Your task to perform on an android device: toggle wifi Image 0: 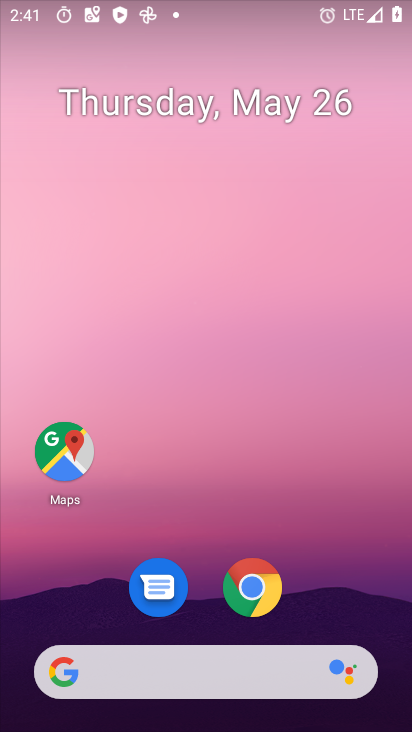
Step 0: drag from (374, 618) to (390, 252)
Your task to perform on an android device: toggle wifi Image 1: 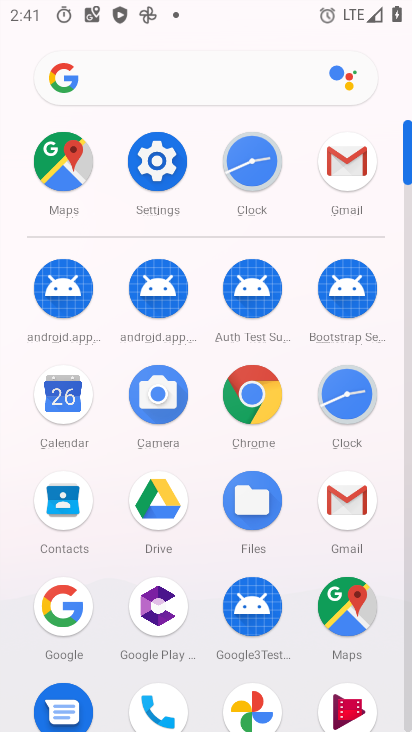
Step 1: click (155, 175)
Your task to perform on an android device: toggle wifi Image 2: 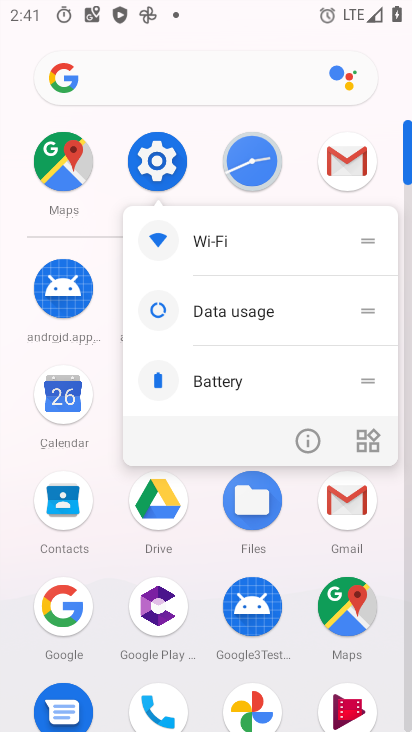
Step 2: click (155, 175)
Your task to perform on an android device: toggle wifi Image 3: 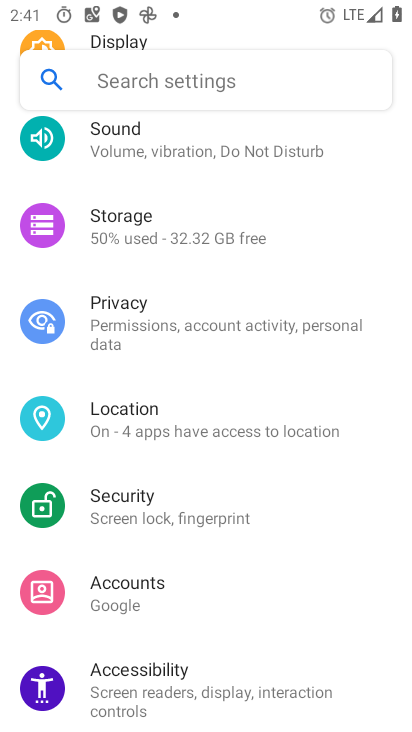
Step 3: drag from (352, 568) to (355, 483)
Your task to perform on an android device: toggle wifi Image 4: 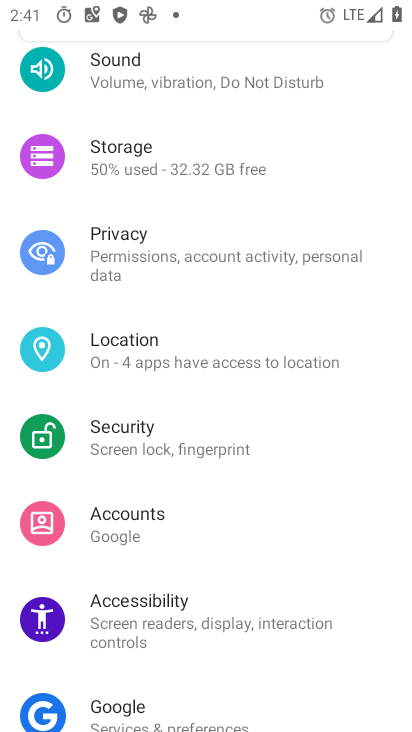
Step 4: drag from (365, 604) to (356, 516)
Your task to perform on an android device: toggle wifi Image 5: 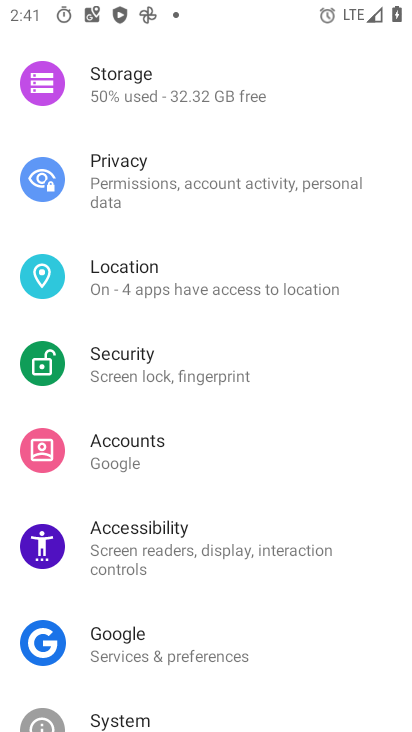
Step 5: drag from (353, 615) to (352, 515)
Your task to perform on an android device: toggle wifi Image 6: 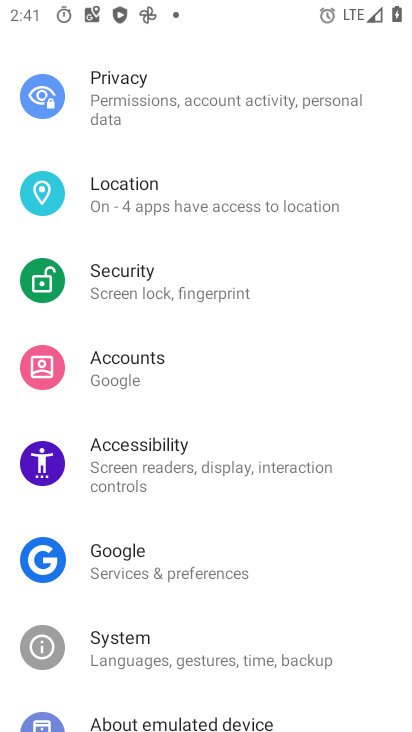
Step 6: drag from (352, 600) to (355, 497)
Your task to perform on an android device: toggle wifi Image 7: 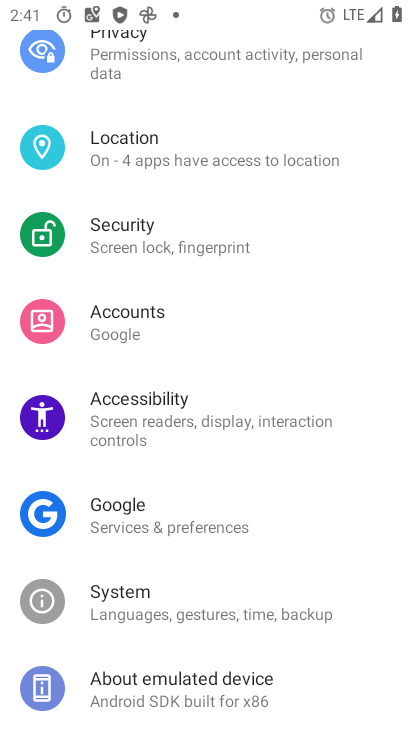
Step 7: drag from (341, 472) to (348, 578)
Your task to perform on an android device: toggle wifi Image 8: 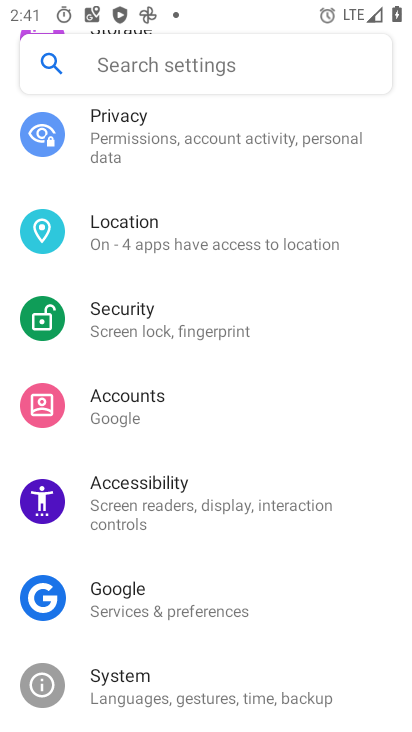
Step 8: drag from (365, 430) to (380, 531)
Your task to perform on an android device: toggle wifi Image 9: 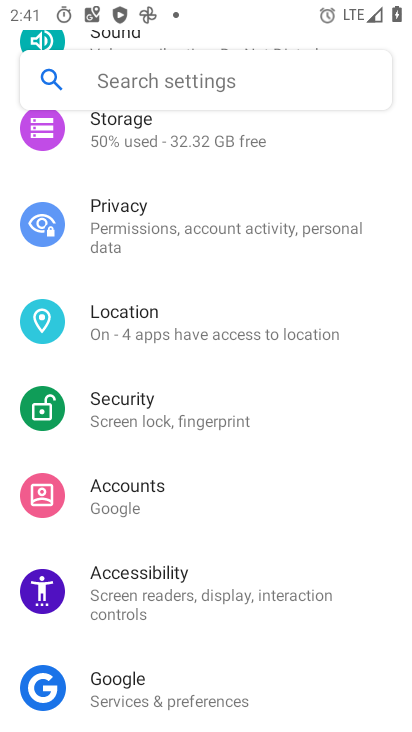
Step 9: drag from (392, 378) to (394, 488)
Your task to perform on an android device: toggle wifi Image 10: 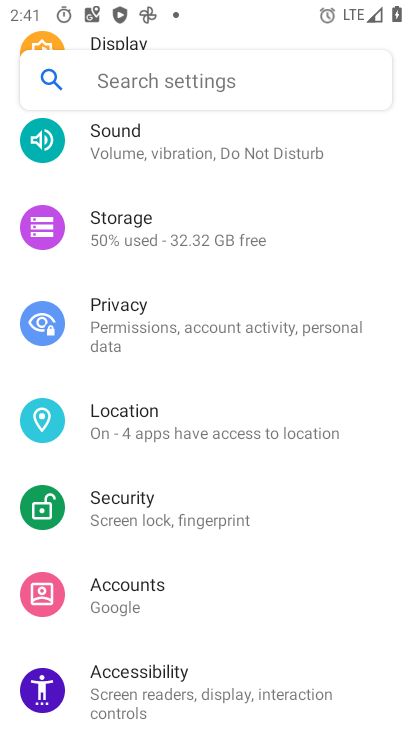
Step 10: drag from (376, 367) to (383, 465)
Your task to perform on an android device: toggle wifi Image 11: 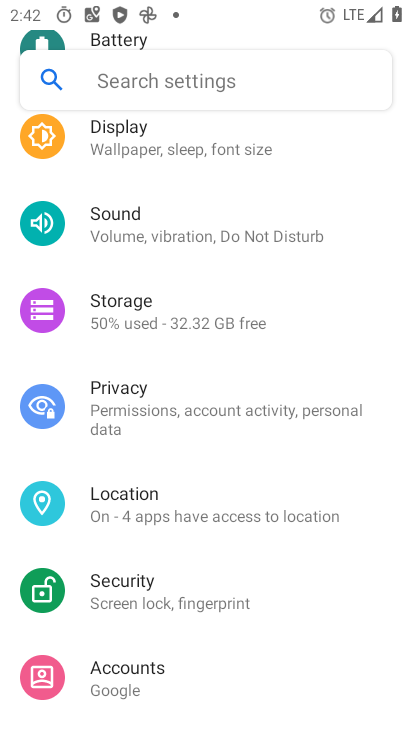
Step 11: drag from (378, 300) to (372, 444)
Your task to perform on an android device: toggle wifi Image 12: 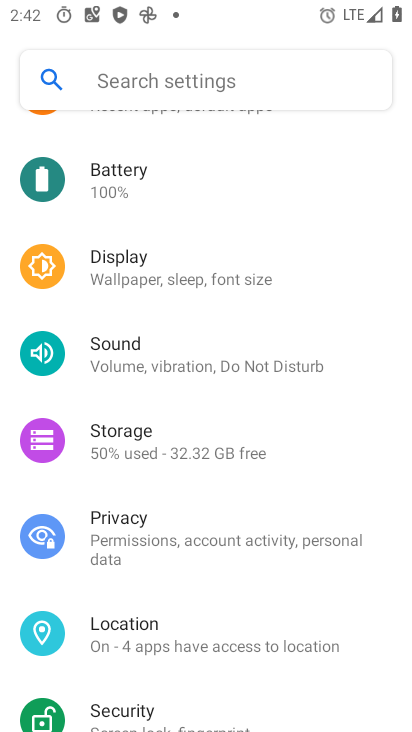
Step 12: drag from (359, 301) to (363, 431)
Your task to perform on an android device: toggle wifi Image 13: 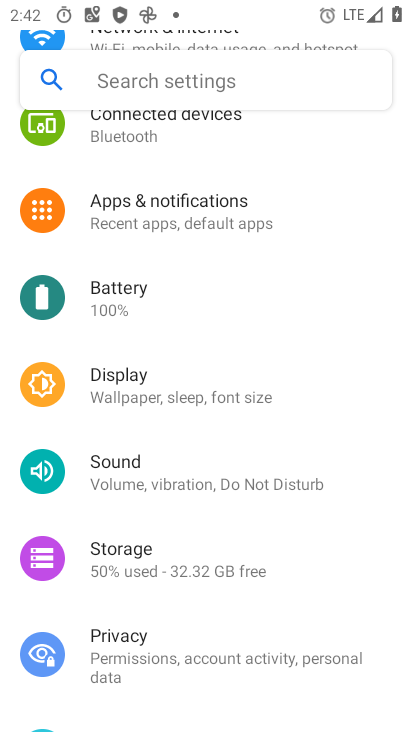
Step 13: drag from (355, 355) to (364, 458)
Your task to perform on an android device: toggle wifi Image 14: 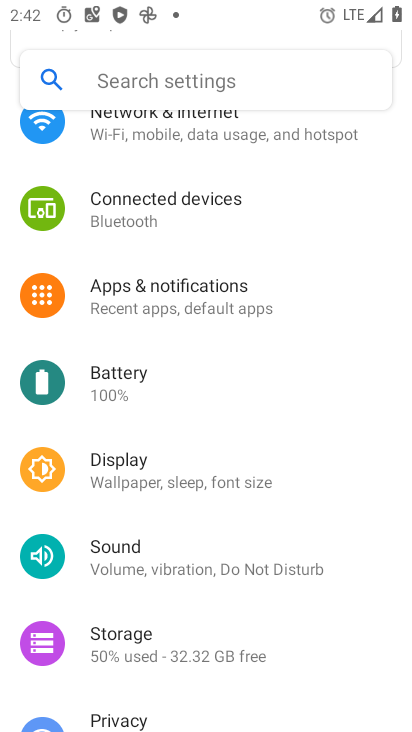
Step 14: drag from (348, 277) to (331, 385)
Your task to perform on an android device: toggle wifi Image 15: 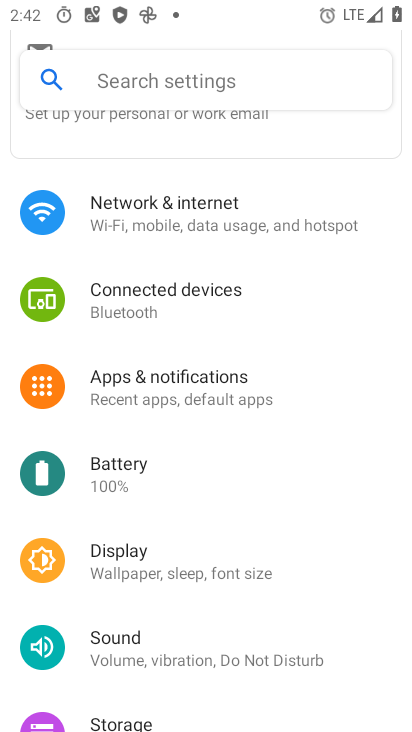
Step 15: drag from (348, 250) to (344, 377)
Your task to perform on an android device: toggle wifi Image 16: 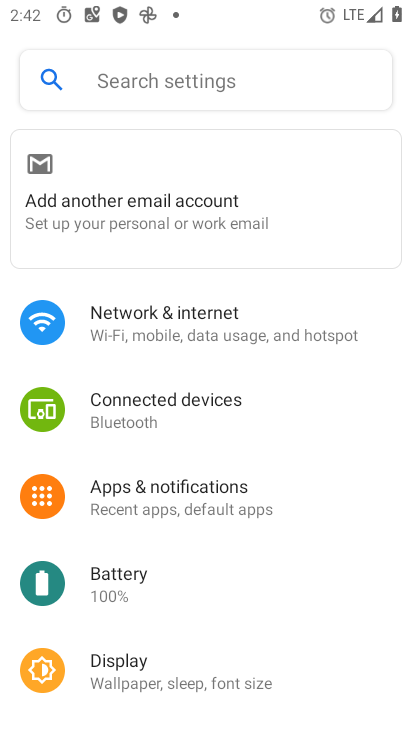
Step 16: click (330, 347)
Your task to perform on an android device: toggle wifi Image 17: 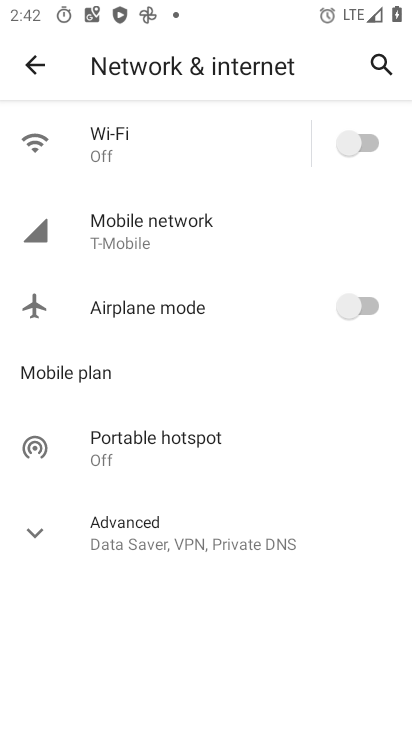
Step 17: click (363, 142)
Your task to perform on an android device: toggle wifi Image 18: 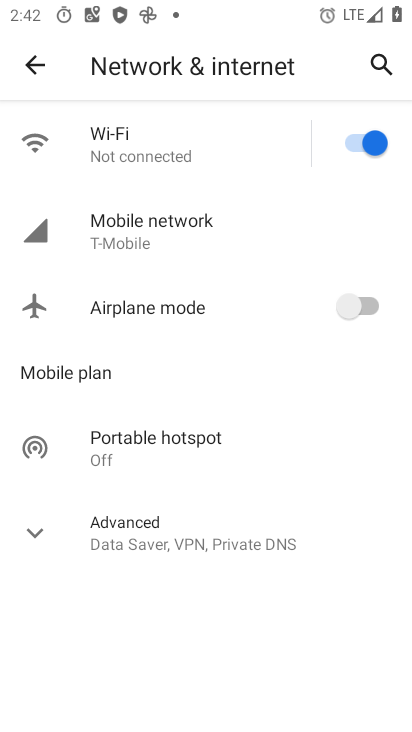
Step 18: task complete